Your task to perform on an android device: Check the news Image 0: 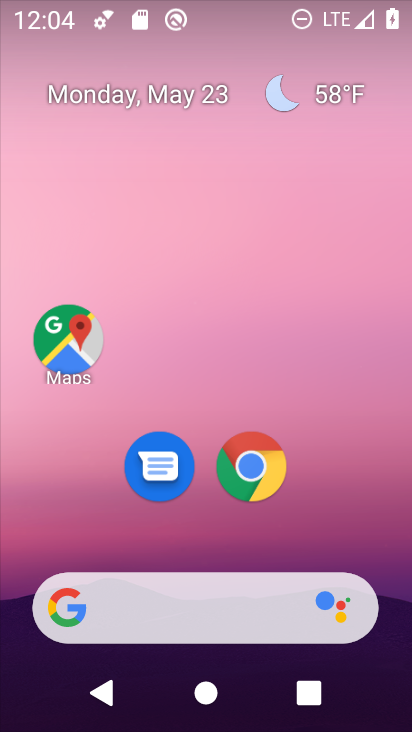
Step 0: drag from (206, 539) to (281, 72)
Your task to perform on an android device: Check the news Image 1: 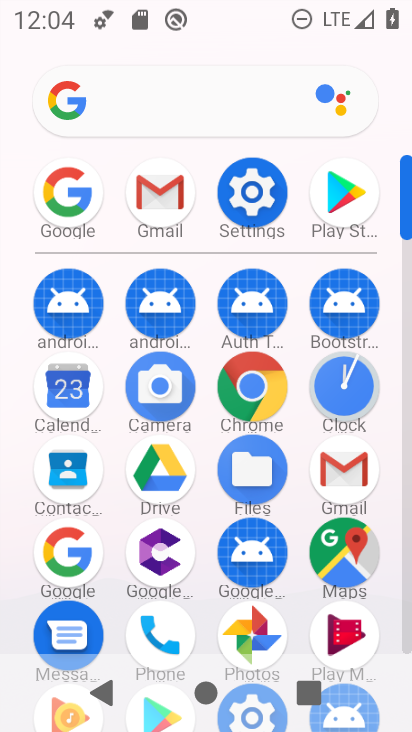
Step 1: click (53, 199)
Your task to perform on an android device: Check the news Image 2: 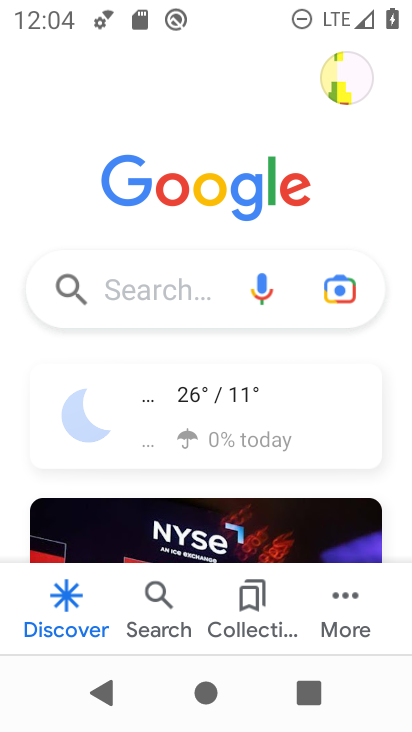
Step 2: click (163, 284)
Your task to perform on an android device: Check the news Image 3: 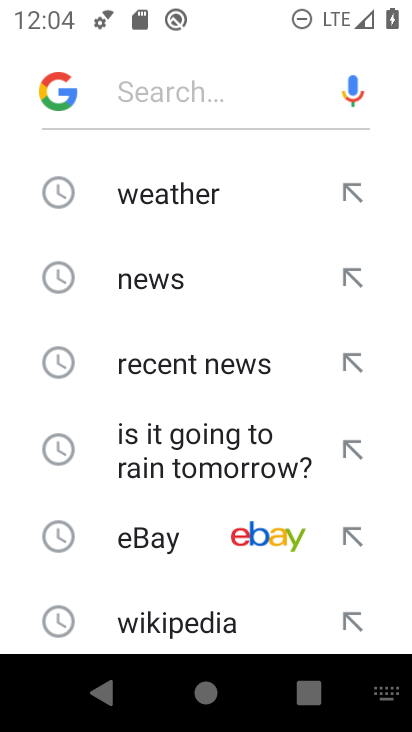
Step 3: click (161, 283)
Your task to perform on an android device: Check the news Image 4: 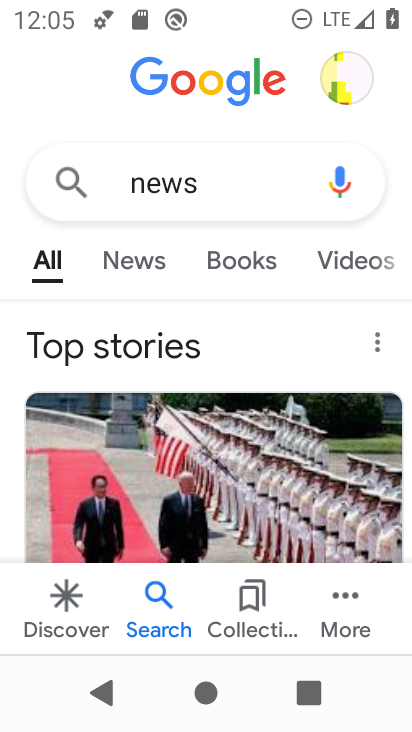
Step 4: task complete